Your task to perform on an android device: Go to CNN.com Image 0: 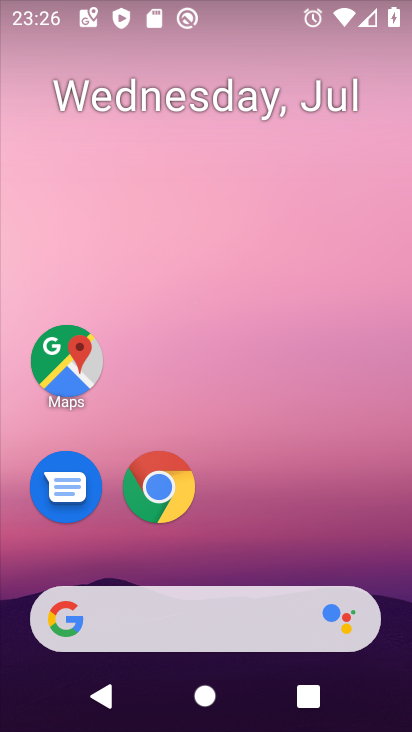
Step 0: click (166, 492)
Your task to perform on an android device: Go to CNN.com Image 1: 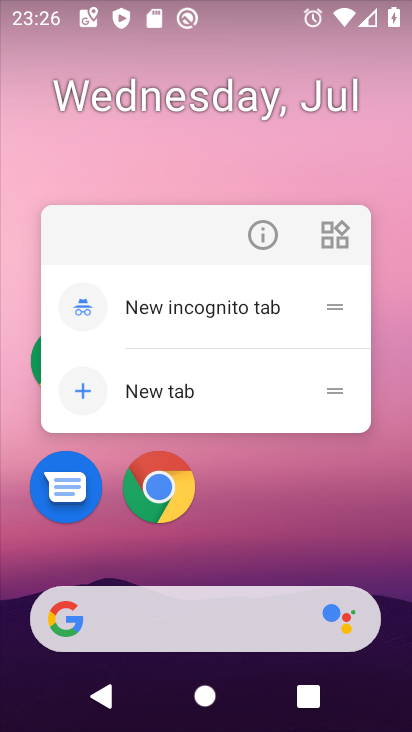
Step 1: click (166, 492)
Your task to perform on an android device: Go to CNN.com Image 2: 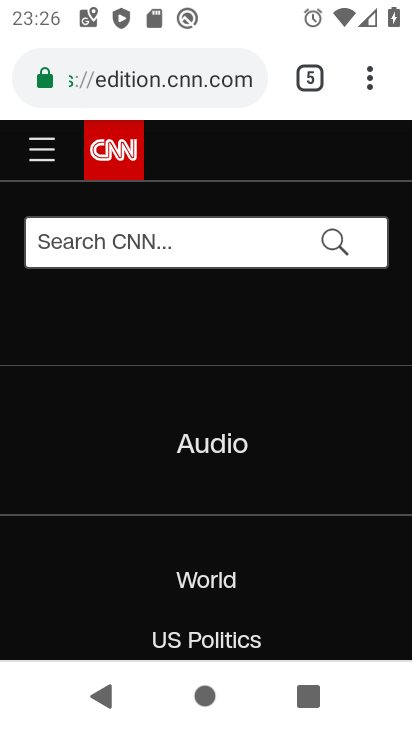
Step 2: task complete